Your task to perform on an android device: allow cookies in the chrome app Image 0: 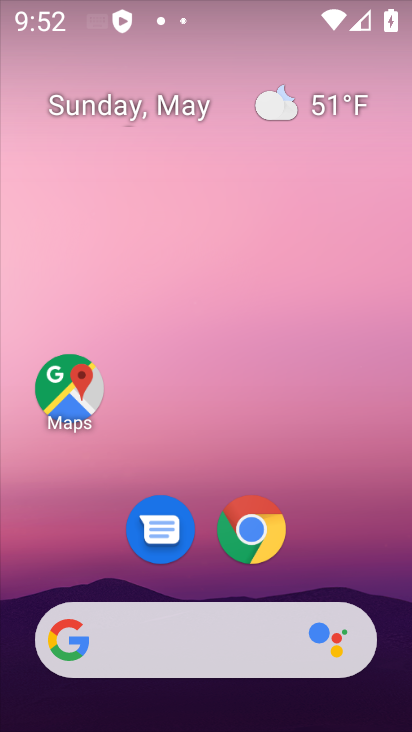
Step 0: click (254, 530)
Your task to perform on an android device: allow cookies in the chrome app Image 1: 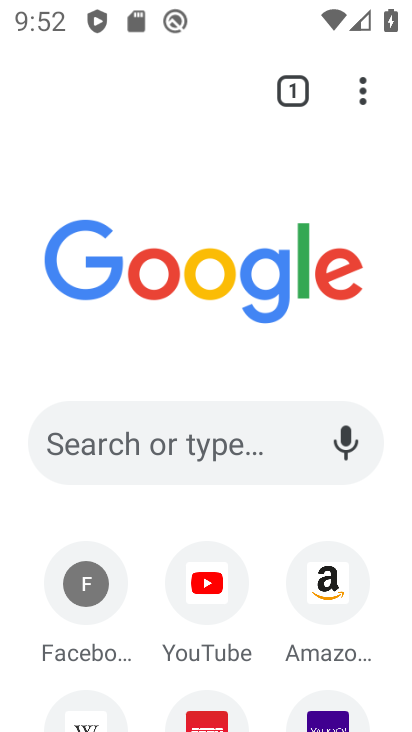
Step 1: drag from (388, 97) to (341, 573)
Your task to perform on an android device: allow cookies in the chrome app Image 2: 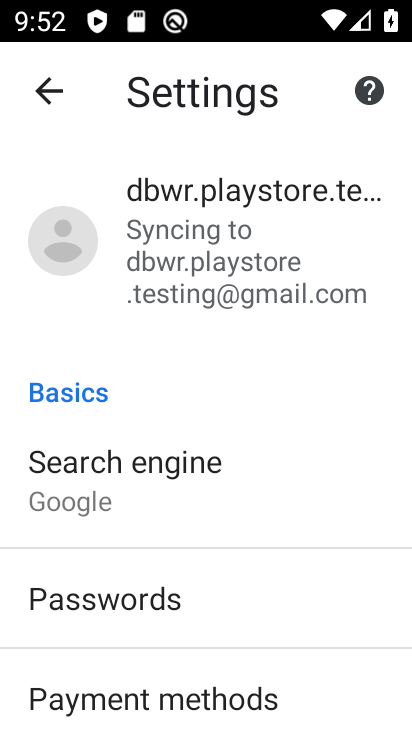
Step 2: drag from (226, 664) to (315, 335)
Your task to perform on an android device: allow cookies in the chrome app Image 3: 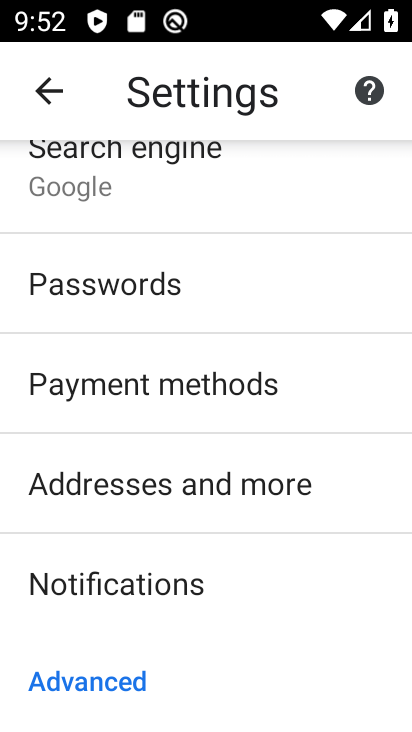
Step 3: drag from (180, 625) to (263, 335)
Your task to perform on an android device: allow cookies in the chrome app Image 4: 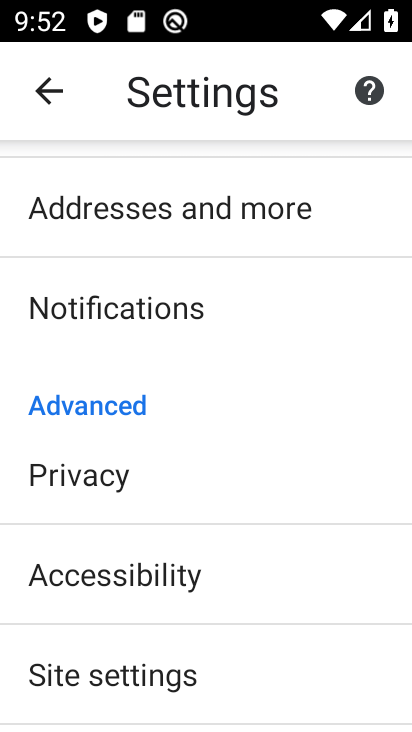
Step 4: drag from (158, 682) to (267, 431)
Your task to perform on an android device: allow cookies in the chrome app Image 5: 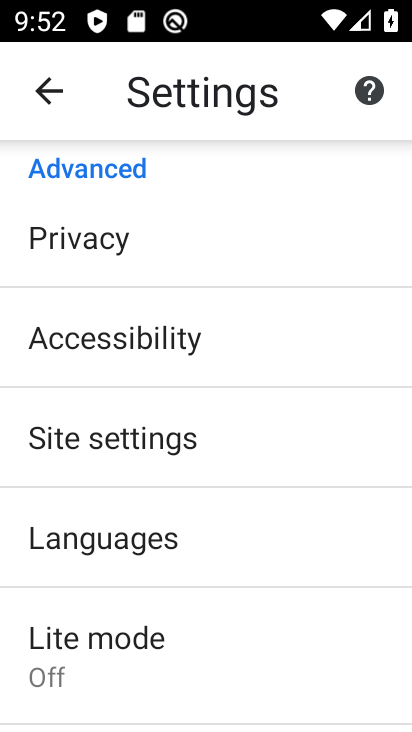
Step 5: drag from (185, 572) to (244, 390)
Your task to perform on an android device: allow cookies in the chrome app Image 6: 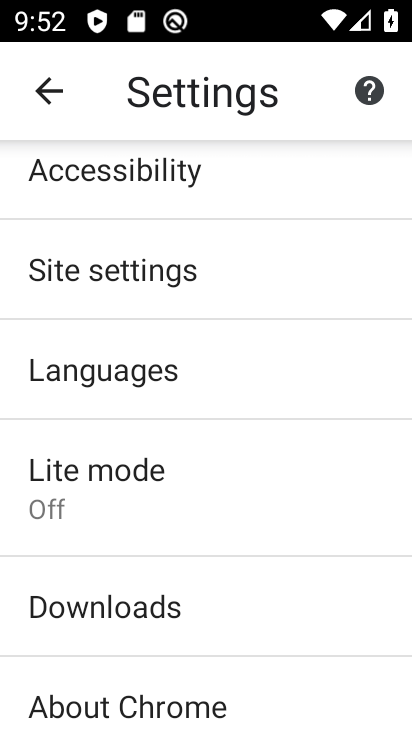
Step 6: click (300, 269)
Your task to perform on an android device: allow cookies in the chrome app Image 7: 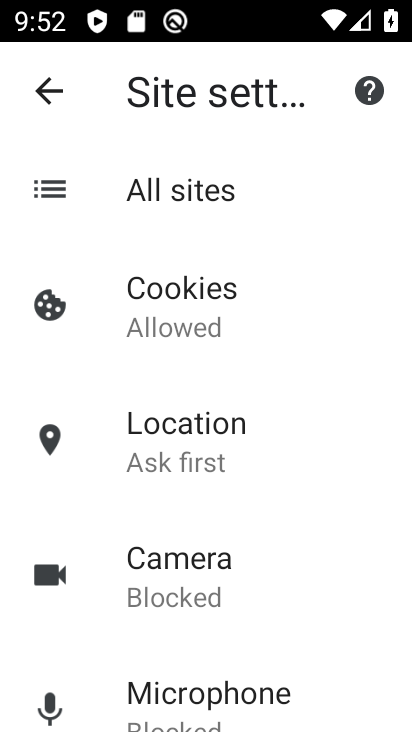
Step 7: click (274, 289)
Your task to perform on an android device: allow cookies in the chrome app Image 8: 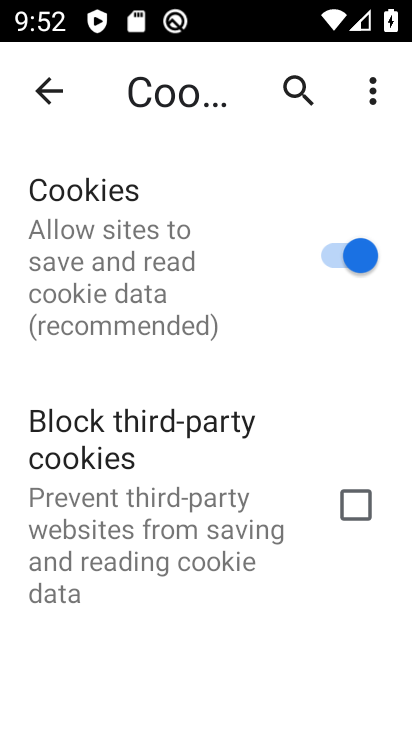
Step 8: task complete